Your task to perform on an android device: See recent photos Image 0: 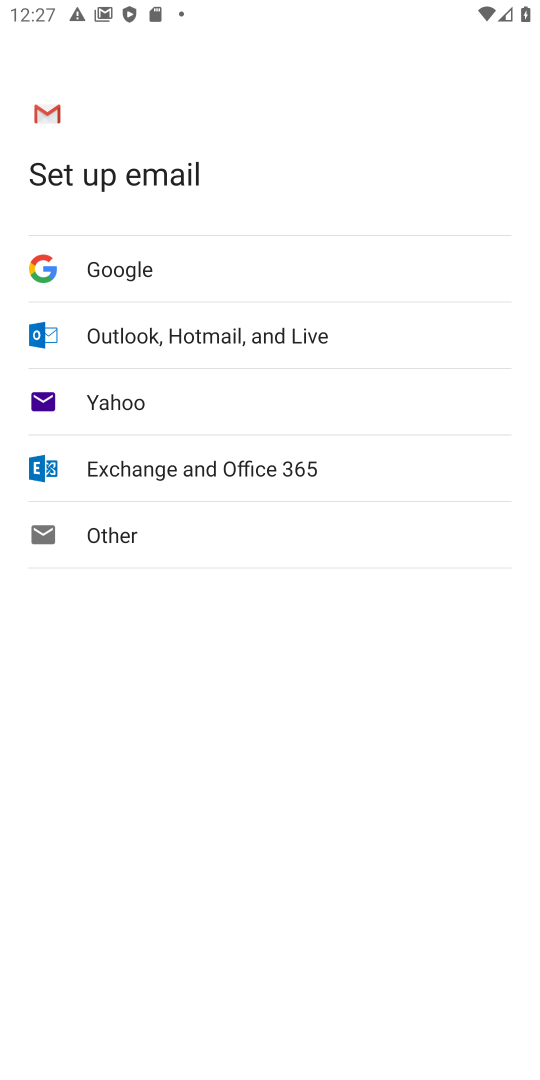
Step 0: press home button
Your task to perform on an android device: See recent photos Image 1: 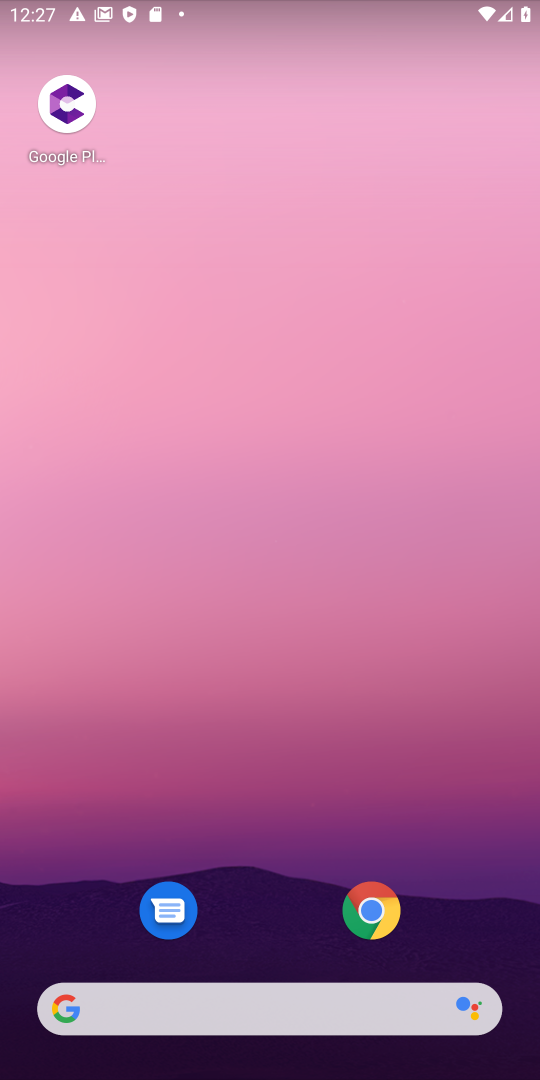
Step 1: drag from (363, 853) to (387, 28)
Your task to perform on an android device: See recent photos Image 2: 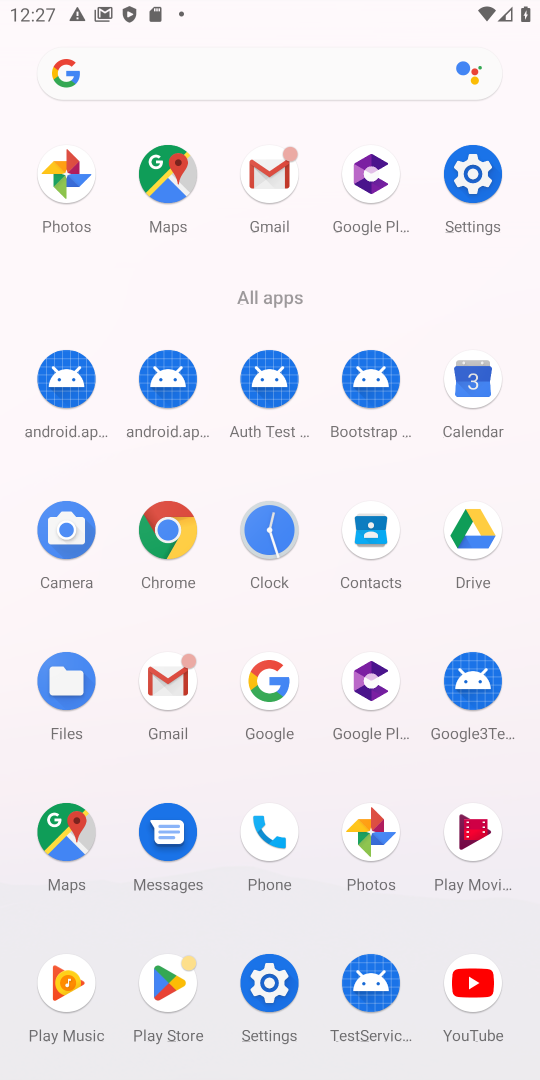
Step 2: click (365, 839)
Your task to perform on an android device: See recent photos Image 3: 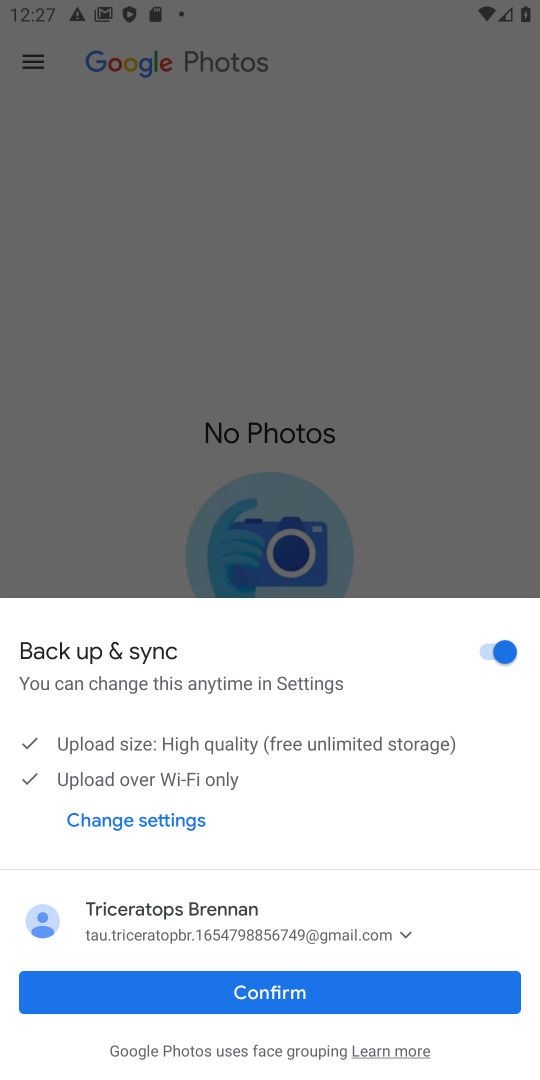
Step 3: click (315, 996)
Your task to perform on an android device: See recent photos Image 4: 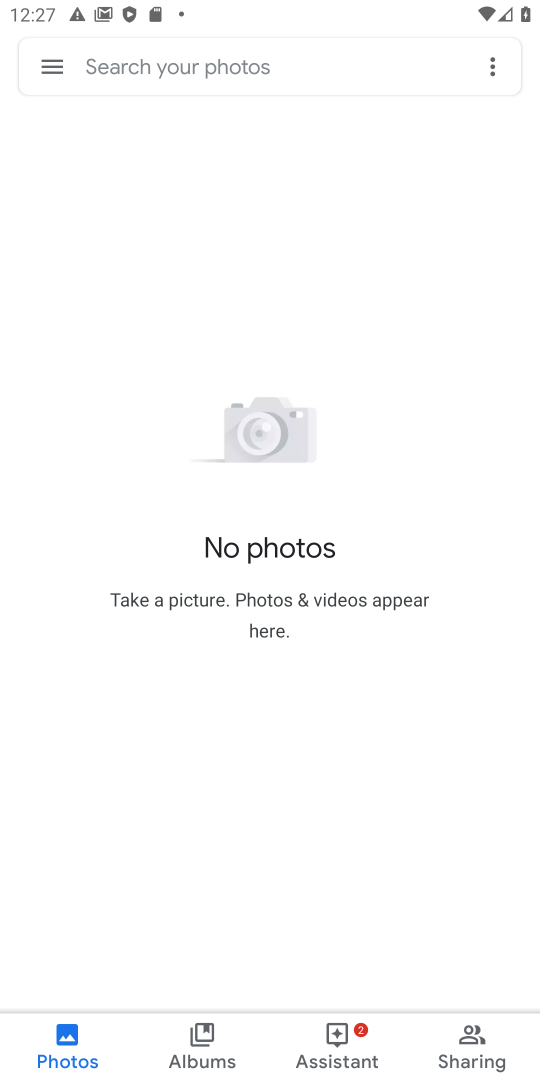
Step 4: task complete